Your task to perform on an android device: check storage Image 0: 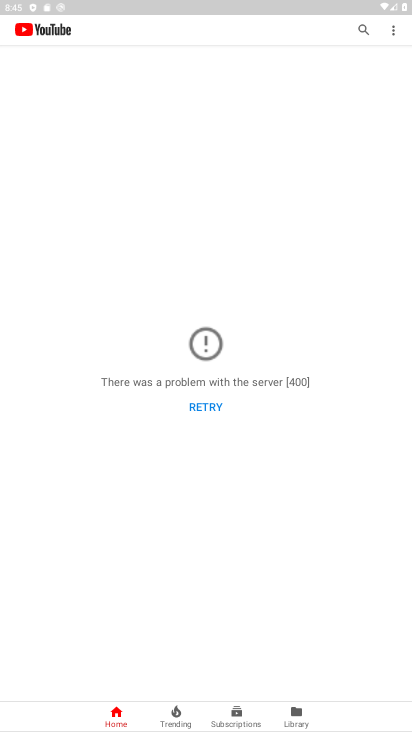
Step 0: press home button
Your task to perform on an android device: check storage Image 1: 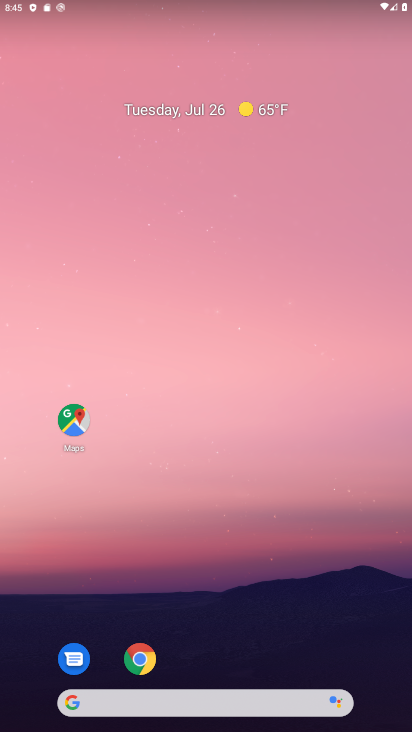
Step 1: drag from (156, 613) to (122, 181)
Your task to perform on an android device: check storage Image 2: 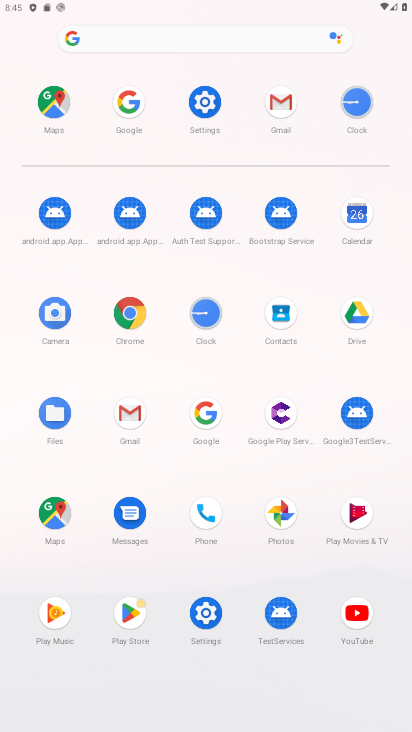
Step 2: click (209, 102)
Your task to perform on an android device: check storage Image 3: 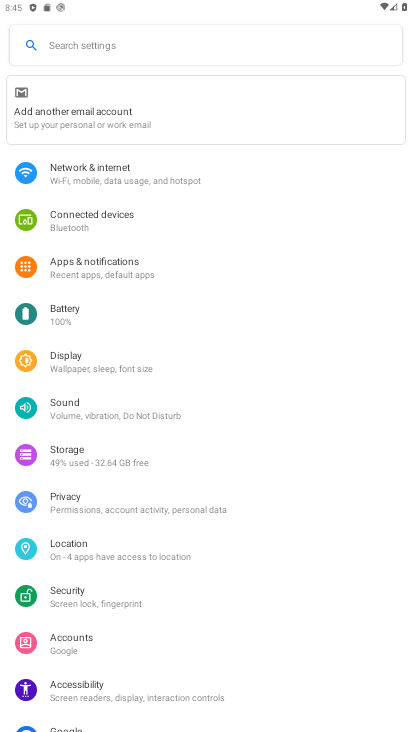
Step 3: click (58, 453)
Your task to perform on an android device: check storage Image 4: 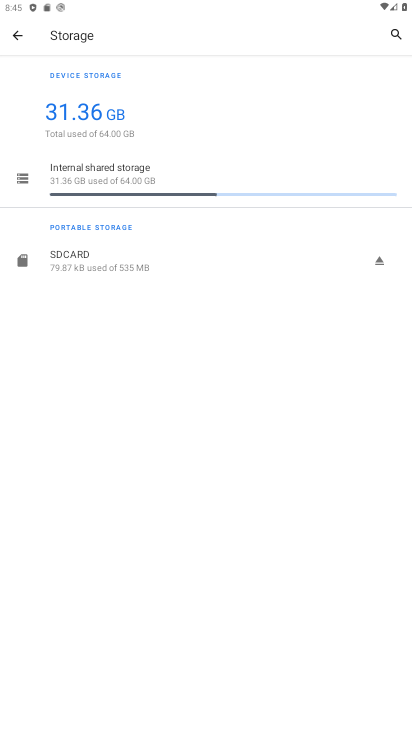
Step 4: task complete